Your task to perform on an android device: turn on showing notifications on the lock screen Image 0: 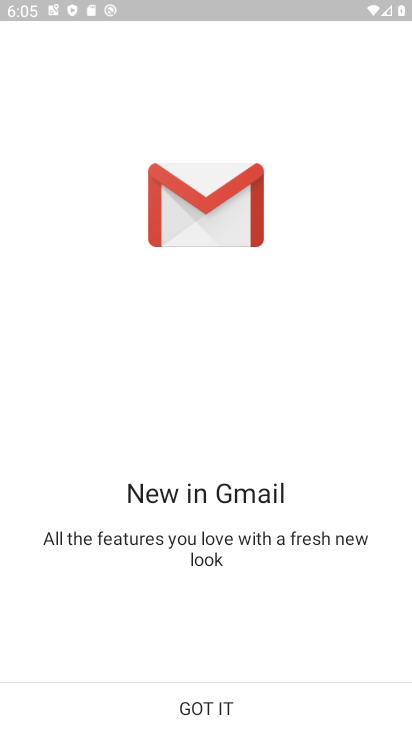
Step 0: press back button
Your task to perform on an android device: turn on showing notifications on the lock screen Image 1: 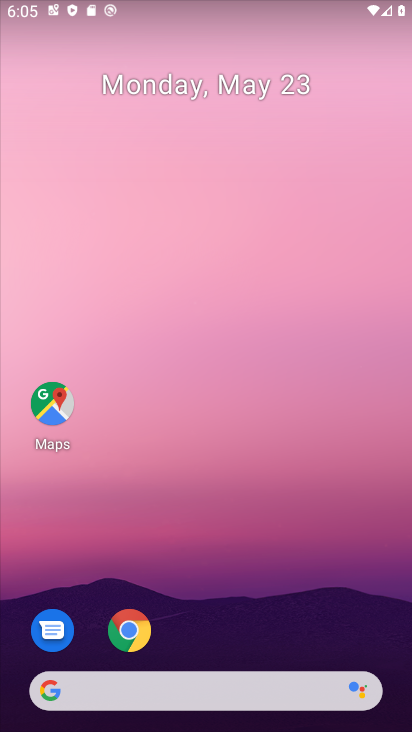
Step 1: drag from (257, 532) to (262, 10)
Your task to perform on an android device: turn on showing notifications on the lock screen Image 2: 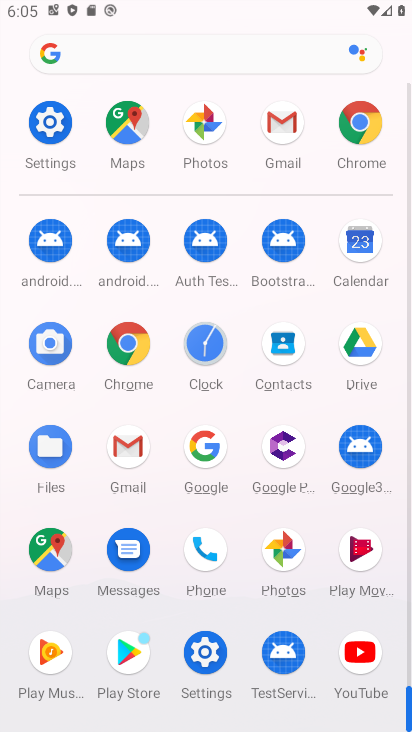
Step 2: drag from (6, 539) to (0, 267)
Your task to perform on an android device: turn on showing notifications on the lock screen Image 3: 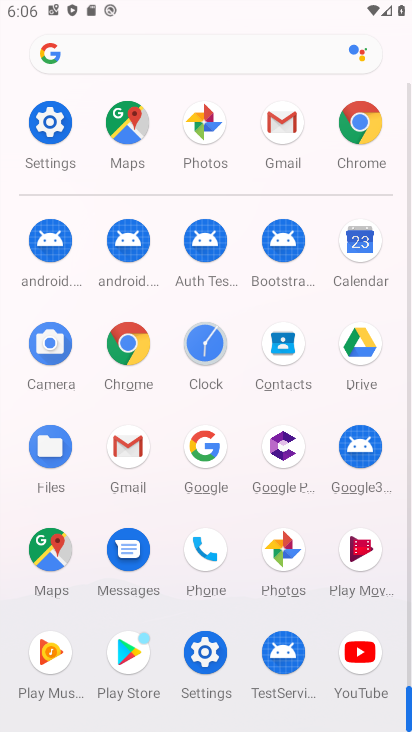
Step 3: click (47, 114)
Your task to perform on an android device: turn on showing notifications on the lock screen Image 4: 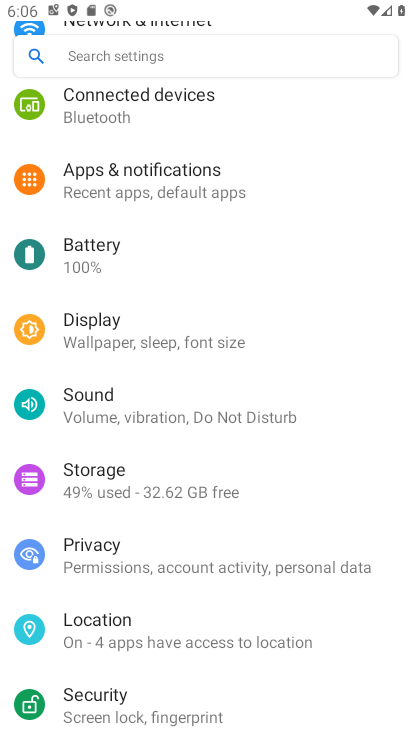
Step 4: click (164, 181)
Your task to perform on an android device: turn on showing notifications on the lock screen Image 5: 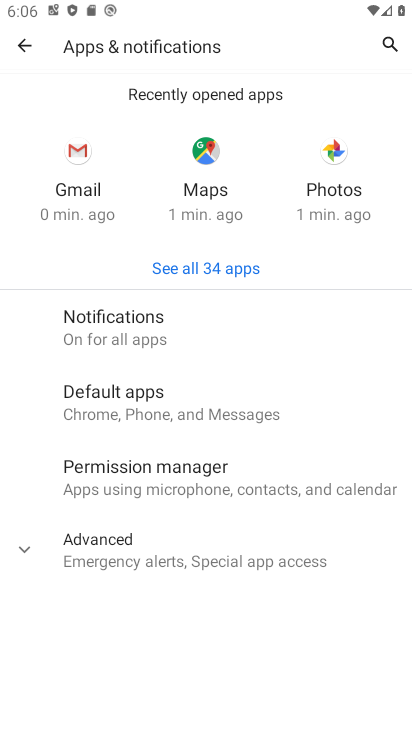
Step 5: click (168, 354)
Your task to perform on an android device: turn on showing notifications on the lock screen Image 6: 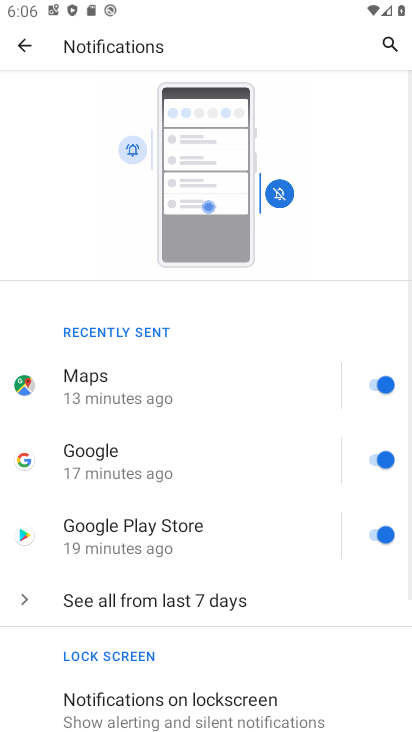
Step 6: drag from (222, 566) to (245, 142)
Your task to perform on an android device: turn on showing notifications on the lock screen Image 7: 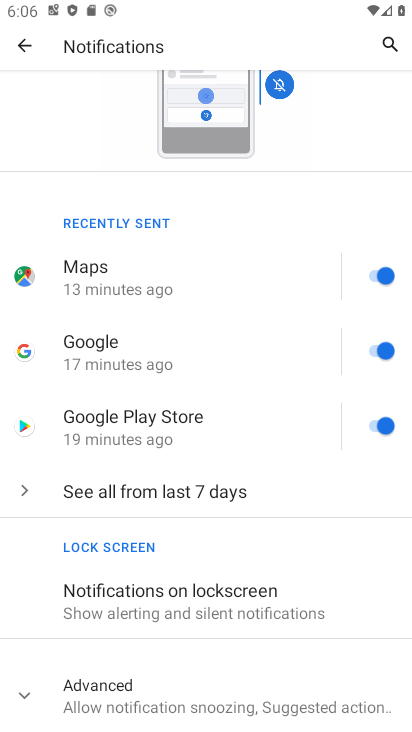
Step 7: click (164, 595)
Your task to perform on an android device: turn on showing notifications on the lock screen Image 8: 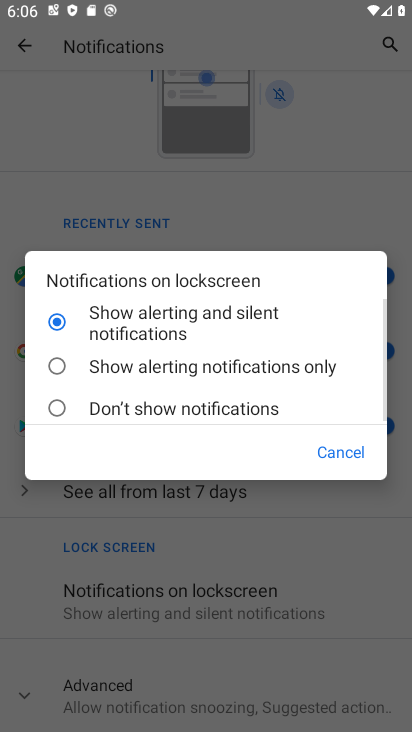
Step 8: click (163, 334)
Your task to perform on an android device: turn on showing notifications on the lock screen Image 9: 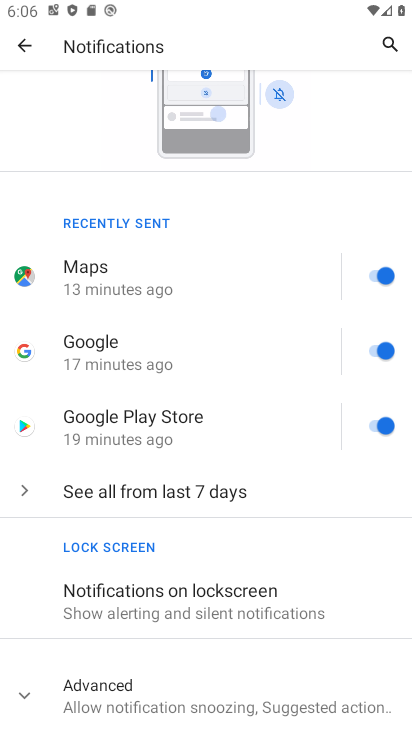
Step 9: drag from (221, 678) to (240, 333)
Your task to perform on an android device: turn on showing notifications on the lock screen Image 10: 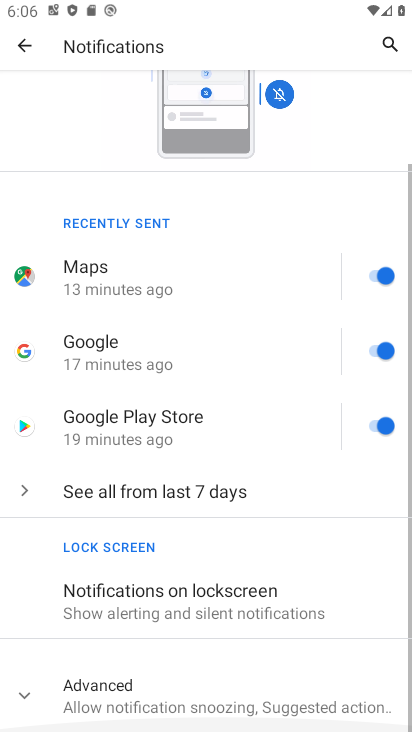
Step 10: click (42, 677)
Your task to perform on an android device: turn on showing notifications on the lock screen Image 11: 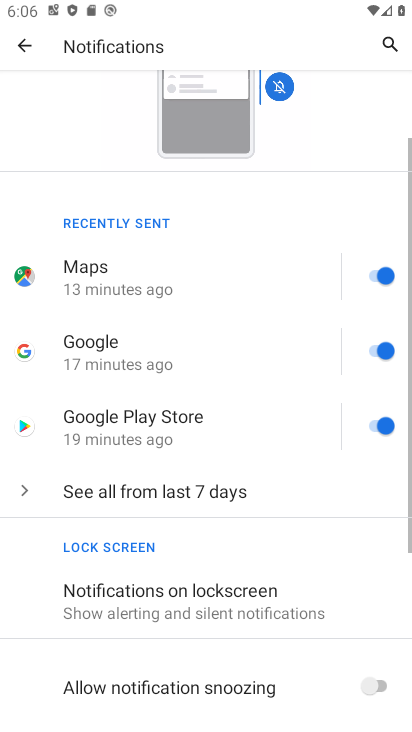
Step 11: task complete